Your task to perform on an android device: What is the news today? Image 0: 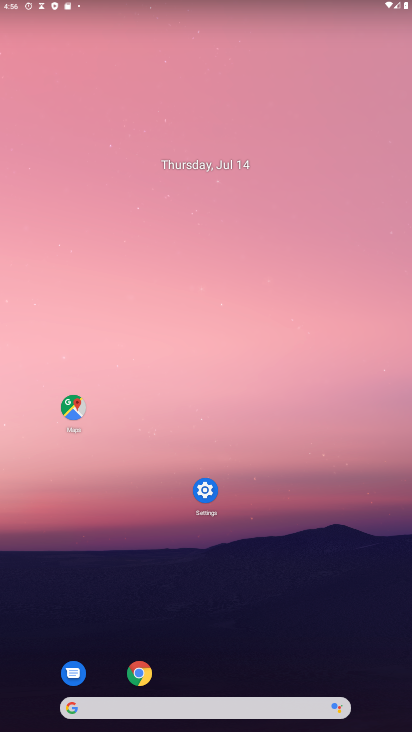
Step 0: drag from (43, 111) to (350, 298)
Your task to perform on an android device: What is the news today? Image 1: 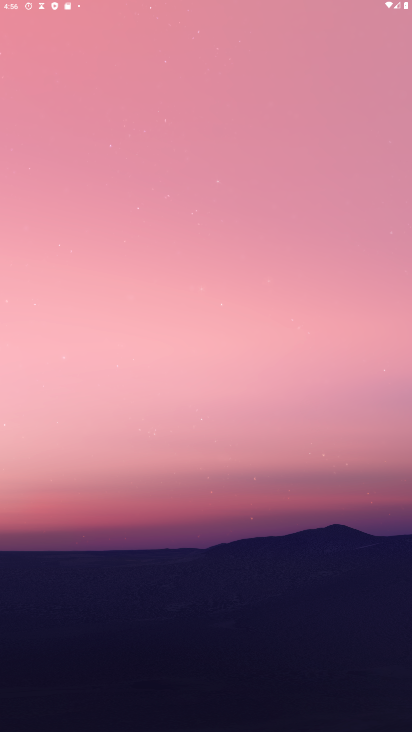
Step 1: task complete